Your task to perform on an android device: Play the last video I watched on Youtube Image 0: 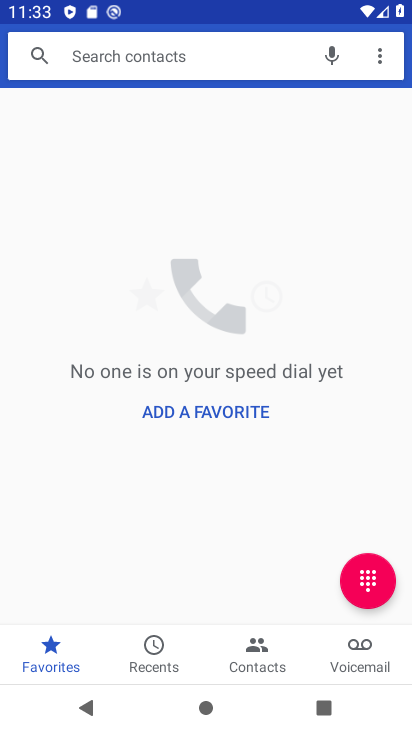
Step 0: press home button
Your task to perform on an android device: Play the last video I watched on Youtube Image 1: 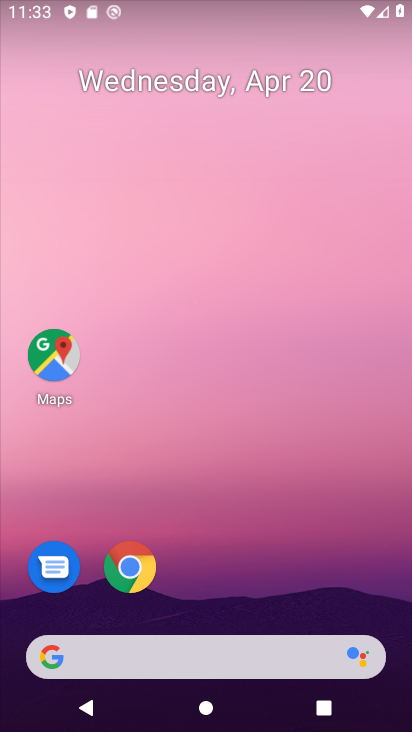
Step 1: drag from (229, 641) to (229, 259)
Your task to perform on an android device: Play the last video I watched on Youtube Image 2: 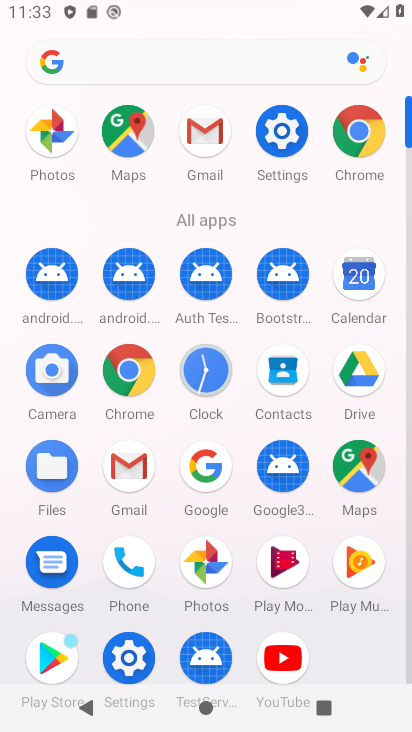
Step 2: click (293, 657)
Your task to perform on an android device: Play the last video I watched on Youtube Image 3: 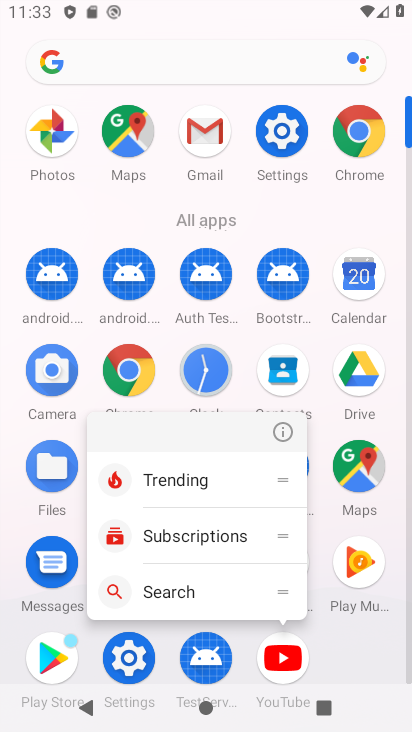
Step 3: click (285, 655)
Your task to perform on an android device: Play the last video I watched on Youtube Image 4: 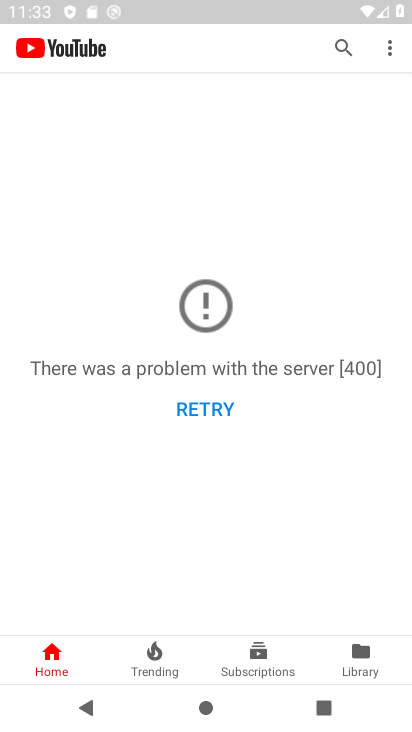
Step 4: click (354, 660)
Your task to perform on an android device: Play the last video I watched on Youtube Image 5: 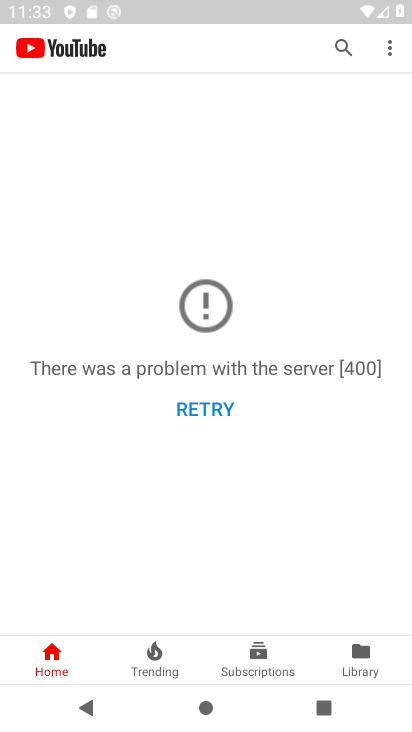
Step 5: click (217, 400)
Your task to perform on an android device: Play the last video I watched on Youtube Image 6: 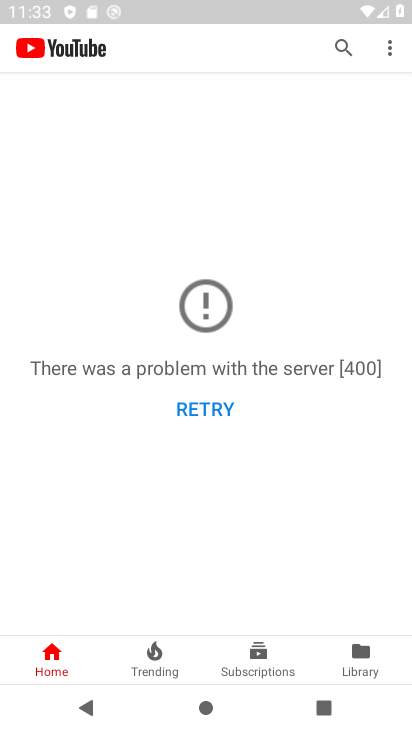
Step 6: task complete